Your task to perform on an android device: choose inbox layout in the gmail app Image 0: 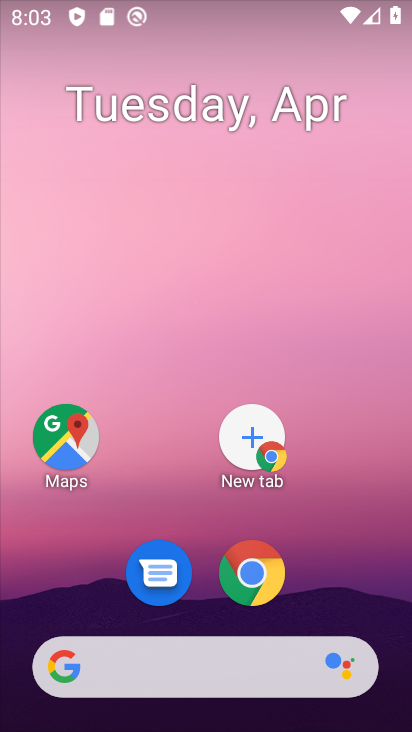
Step 0: drag from (194, 515) to (215, 55)
Your task to perform on an android device: choose inbox layout in the gmail app Image 1: 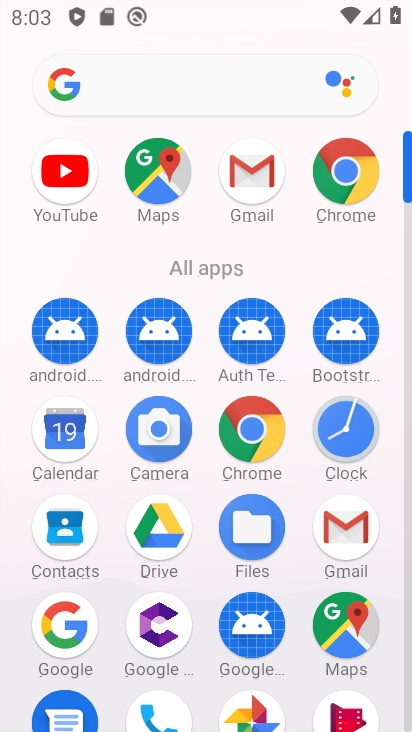
Step 1: click (238, 181)
Your task to perform on an android device: choose inbox layout in the gmail app Image 2: 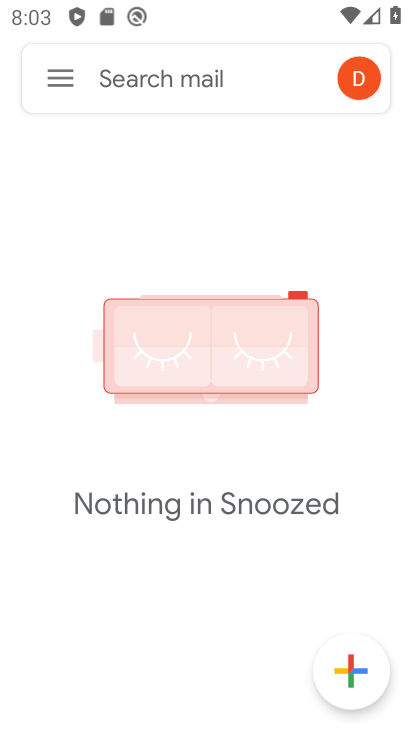
Step 2: click (66, 89)
Your task to perform on an android device: choose inbox layout in the gmail app Image 3: 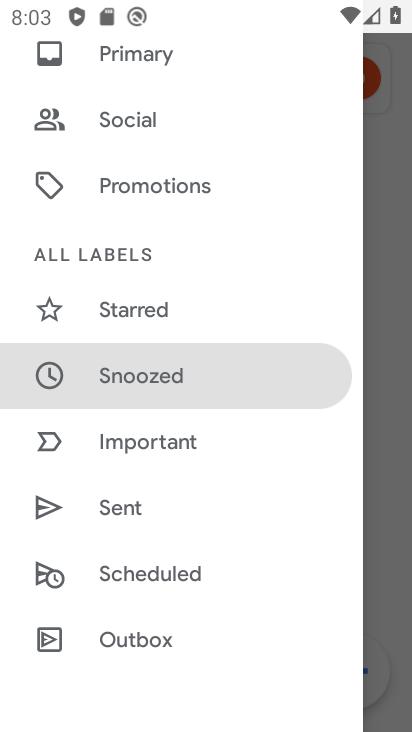
Step 3: drag from (198, 646) to (234, 51)
Your task to perform on an android device: choose inbox layout in the gmail app Image 4: 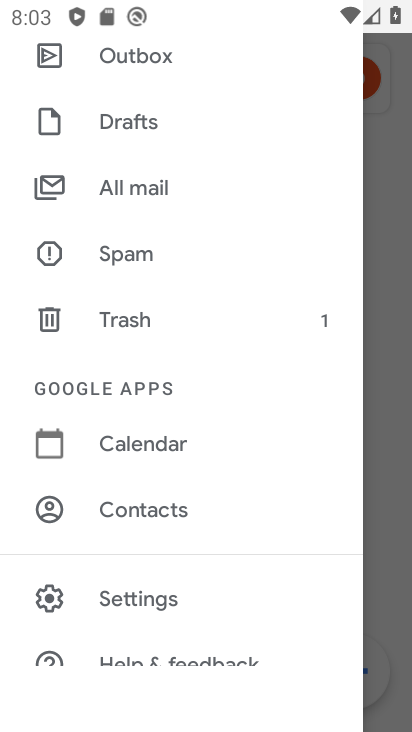
Step 4: click (164, 588)
Your task to perform on an android device: choose inbox layout in the gmail app Image 5: 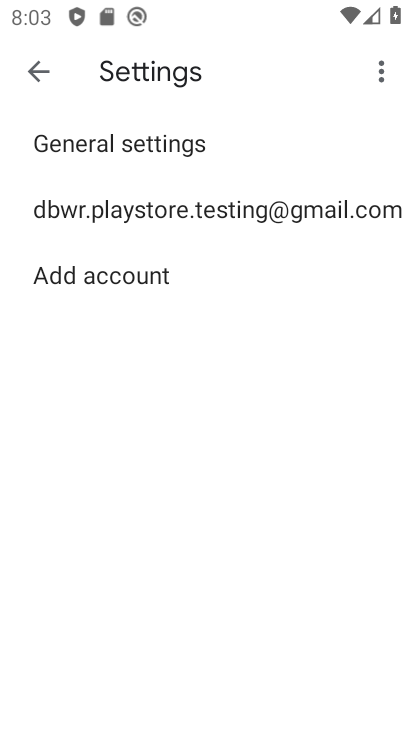
Step 5: click (278, 213)
Your task to perform on an android device: choose inbox layout in the gmail app Image 6: 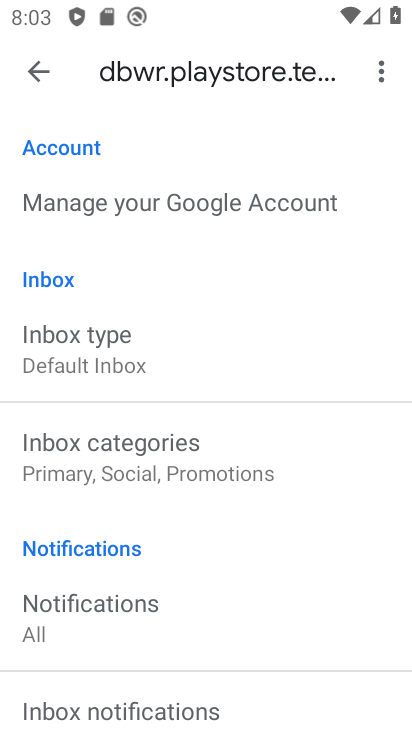
Step 6: click (184, 343)
Your task to perform on an android device: choose inbox layout in the gmail app Image 7: 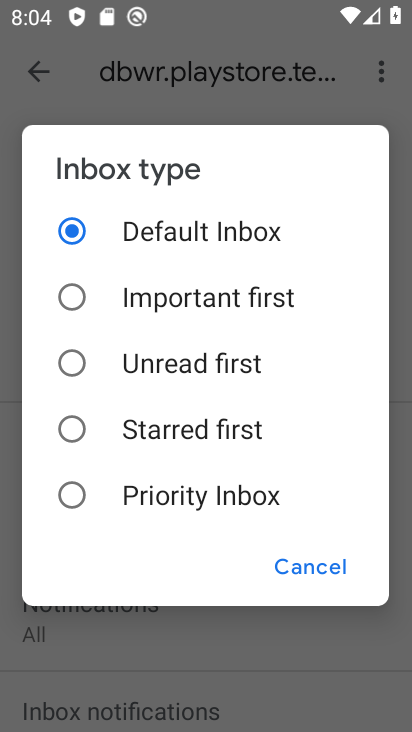
Step 7: click (171, 326)
Your task to perform on an android device: choose inbox layout in the gmail app Image 8: 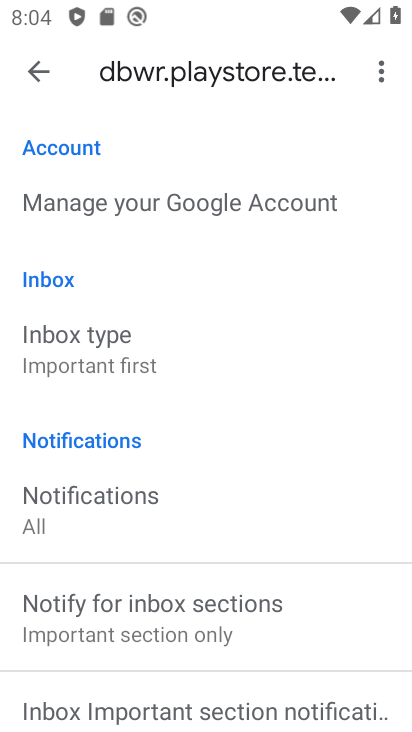
Step 8: task complete